Your task to perform on an android device: Search for Mexican restaurants on Maps Image 0: 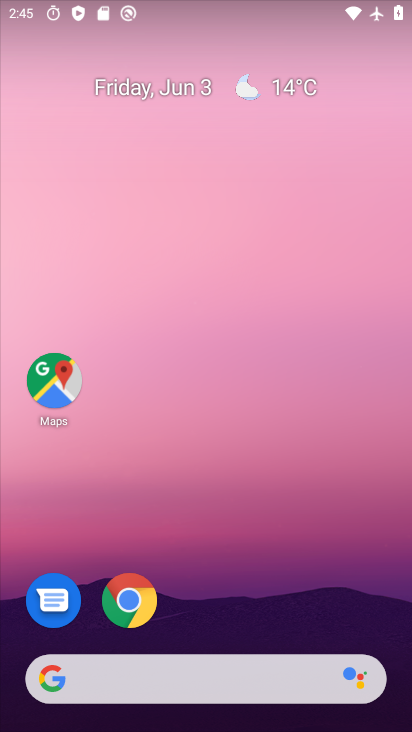
Step 0: press back button
Your task to perform on an android device: Search for Mexican restaurants on Maps Image 1: 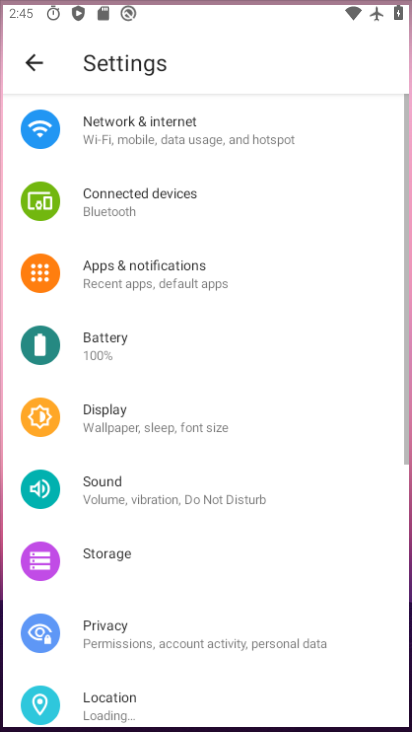
Step 1: drag from (327, 188) to (356, 45)
Your task to perform on an android device: Search for Mexican restaurants on Maps Image 2: 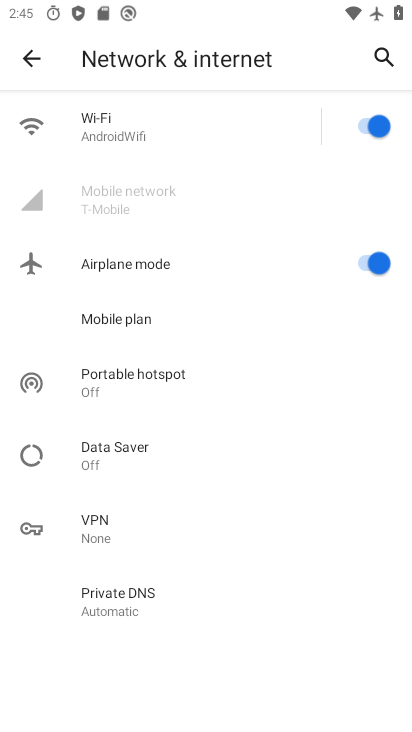
Step 2: press back button
Your task to perform on an android device: Search for Mexican restaurants on Maps Image 3: 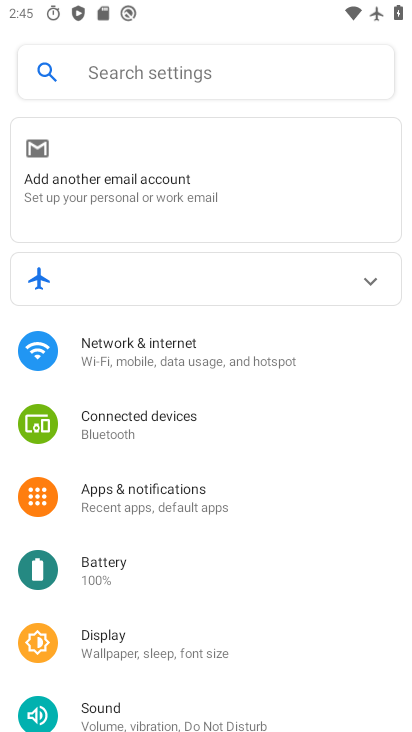
Step 3: press back button
Your task to perform on an android device: Search for Mexican restaurants on Maps Image 4: 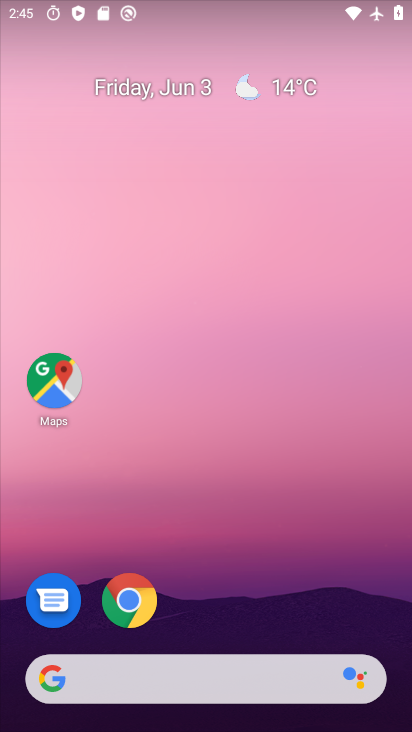
Step 4: click (56, 379)
Your task to perform on an android device: Search for Mexican restaurants on Maps Image 5: 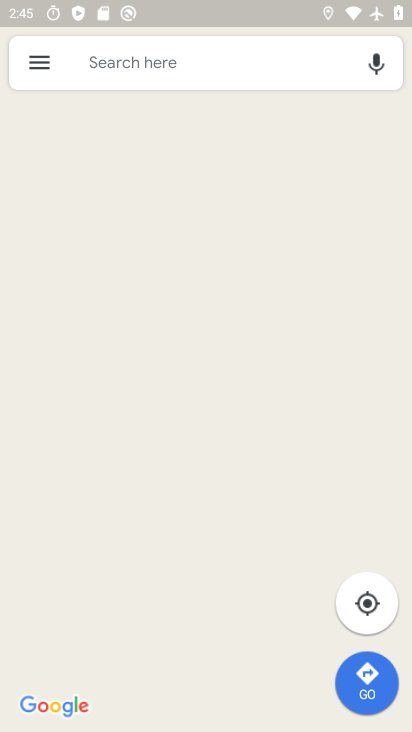
Step 5: click (200, 62)
Your task to perform on an android device: Search for Mexican restaurants on Maps Image 6: 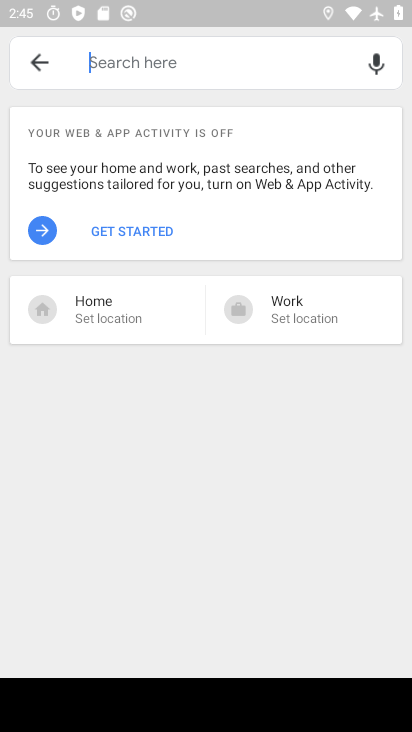
Step 6: type "Mexican restaurants"
Your task to perform on an android device: Search for Mexican restaurants on Maps Image 7: 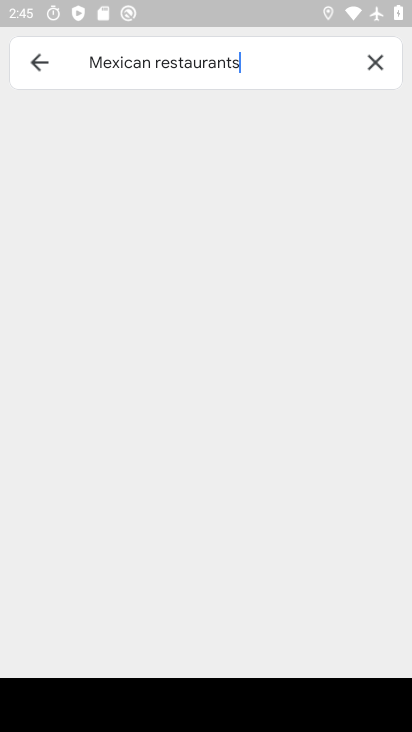
Step 7: click (267, 61)
Your task to perform on an android device: Search for Mexican restaurants on Maps Image 8: 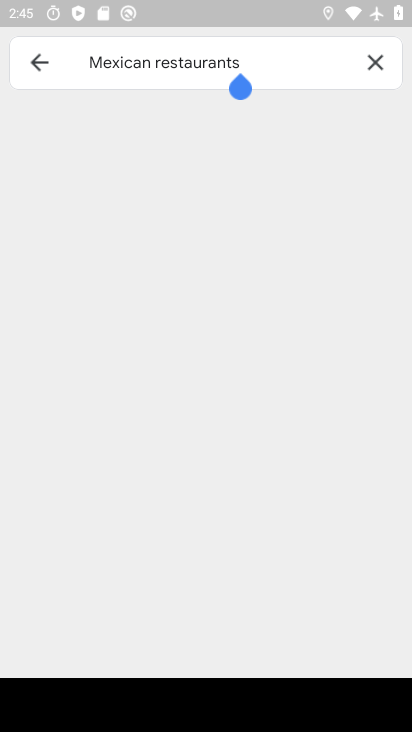
Step 8: click (200, 243)
Your task to perform on an android device: Search for Mexican restaurants on Maps Image 9: 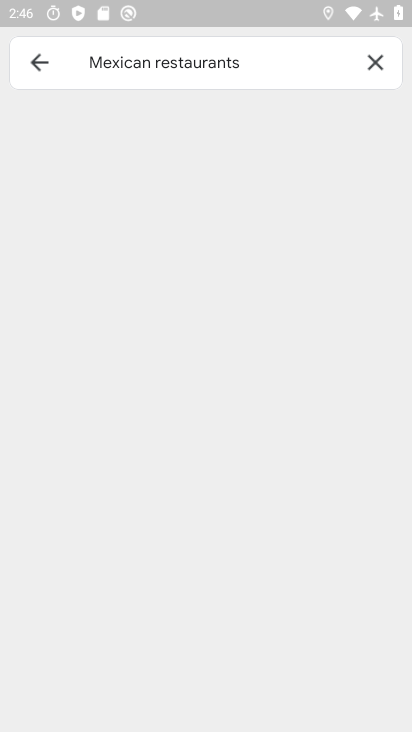
Step 9: click (370, 54)
Your task to perform on an android device: Search for Mexican restaurants on Maps Image 10: 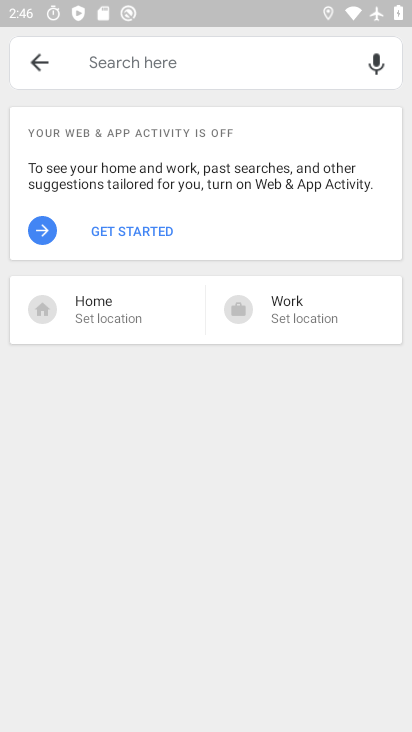
Step 10: click (36, 53)
Your task to perform on an android device: Search for Mexican restaurants on Maps Image 11: 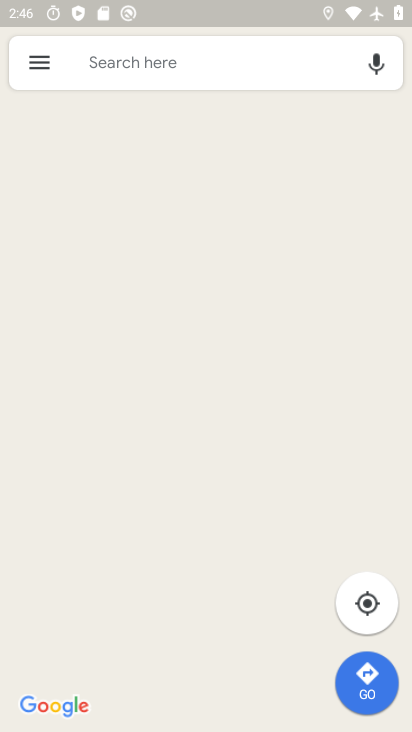
Step 11: drag from (253, 272) to (208, 585)
Your task to perform on an android device: Search for Mexican restaurants on Maps Image 12: 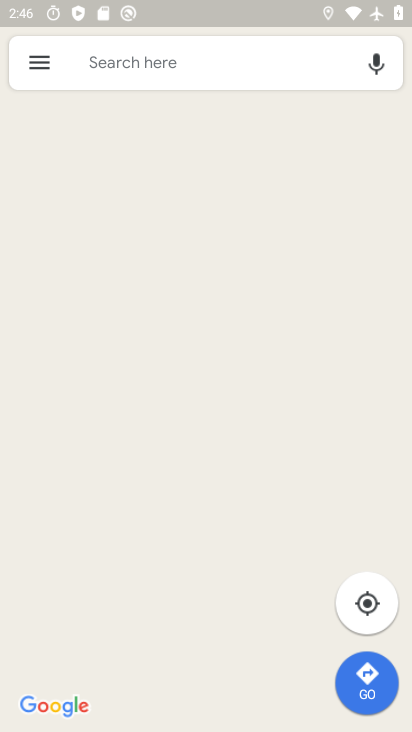
Step 12: click (220, 68)
Your task to perform on an android device: Search for Mexican restaurants on Maps Image 13: 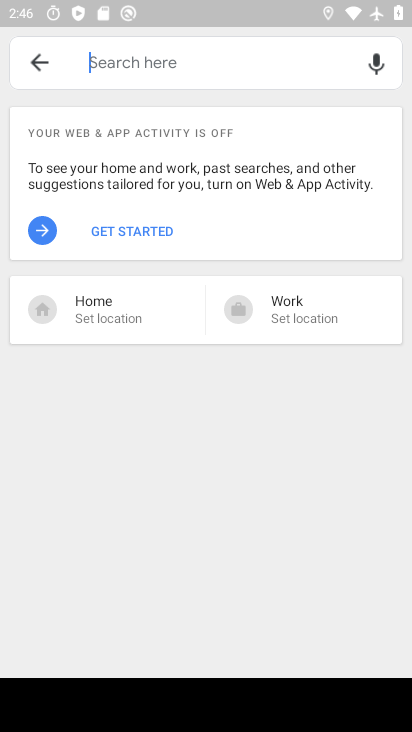
Step 13: type "Mexican restaurants"
Your task to perform on an android device: Search for Mexican restaurants on Maps Image 14: 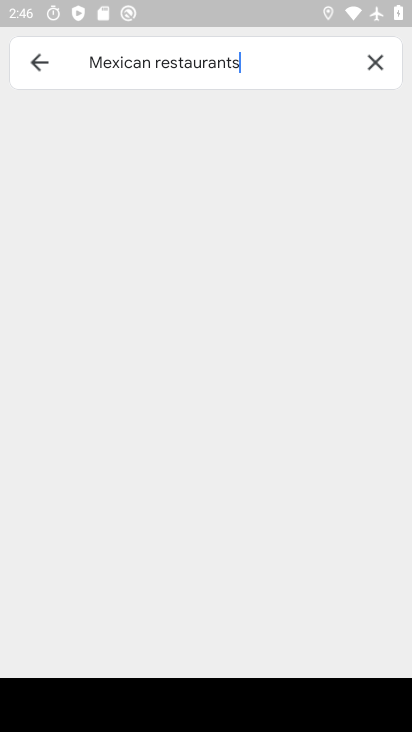
Step 14: type ""
Your task to perform on an android device: Search for Mexican restaurants on Maps Image 15: 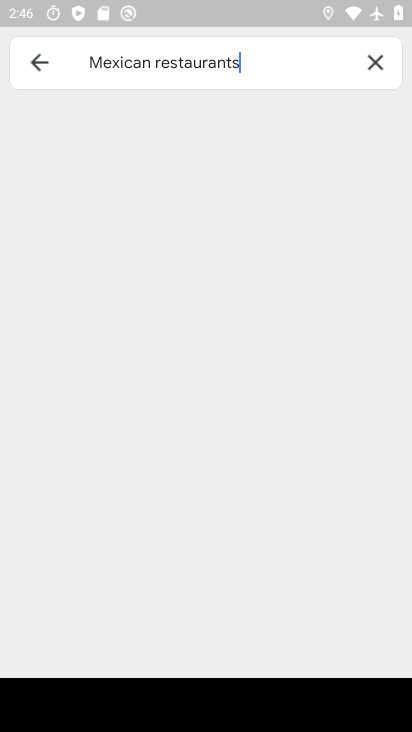
Step 15: task complete